Your task to perform on an android device: delete browsing data in the chrome app Image 0: 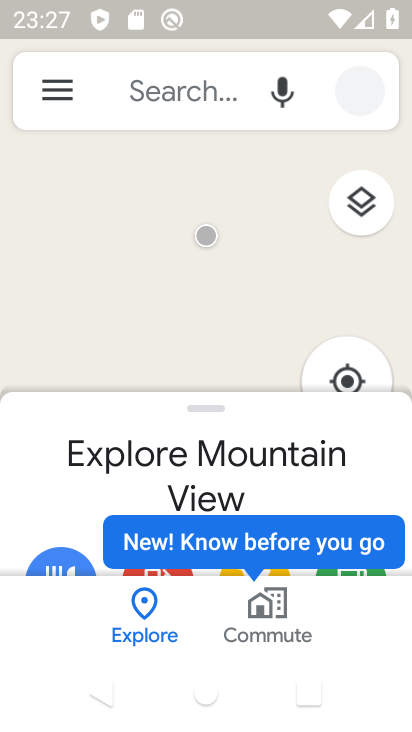
Step 0: press home button
Your task to perform on an android device: delete browsing data in the chrome app Image 1: 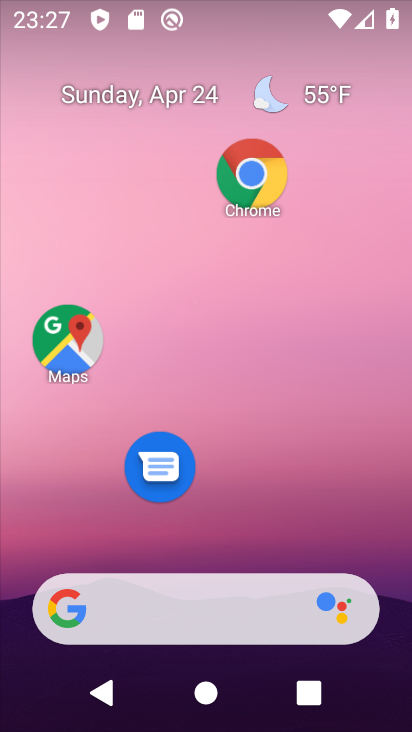
Step 1: click (253, 179)
Your task to perform on an android device: delete browsing data in the chrome app Image 2: 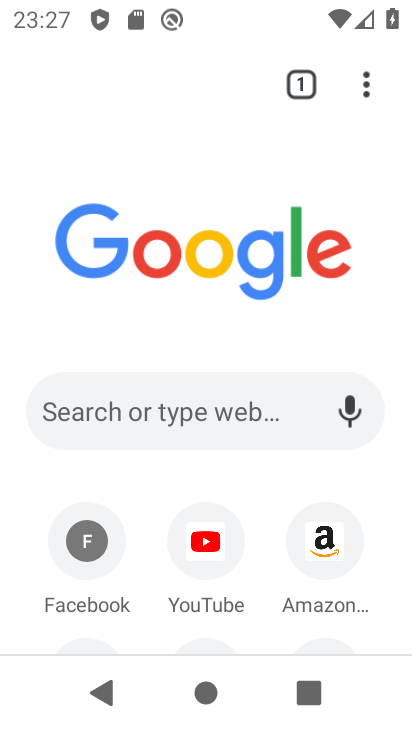
Step 2: click (362, 90)
Your task to perform on an android device: delete browsing data in the chrome app Image 3: 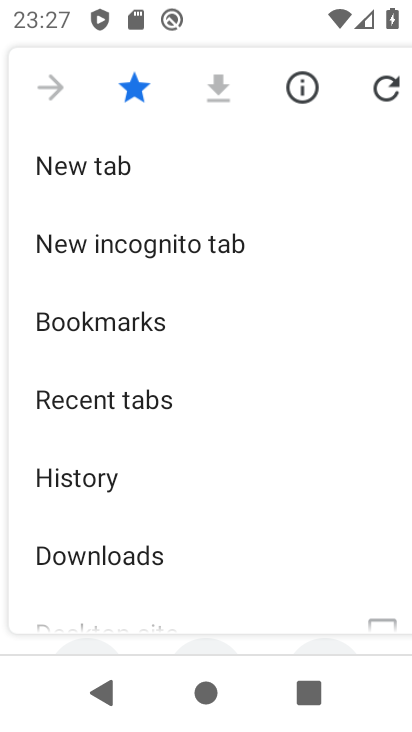
Step 3: drag from (220, 548) to (207, 185)
Your task to perform on an android device: delete browsing data in the chrome app Image 4: 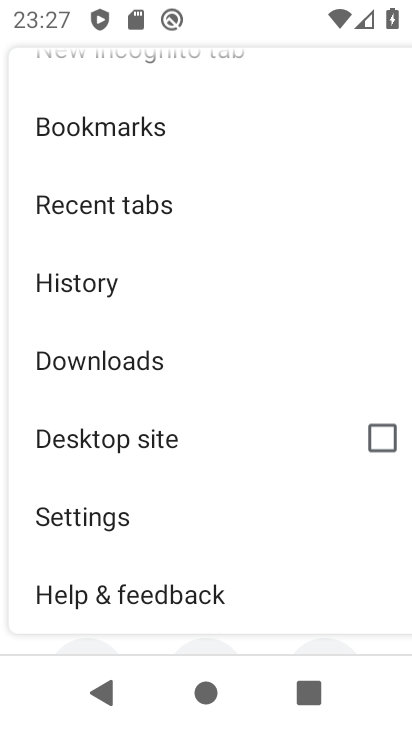
Step 4: click (127, 511)
Your task to perform on an android device: delete browsing data in the chrome app Image 5: 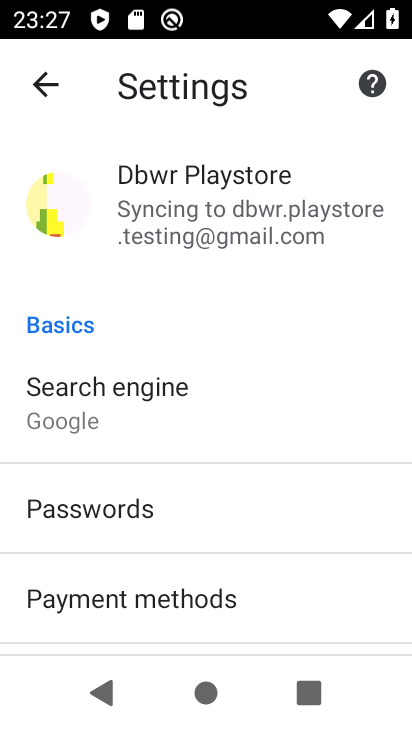
Step 5: drag from (241, 522) to (216, 147)
Your task to perform on an android device: delete browsing data in the chrome app Image 6: 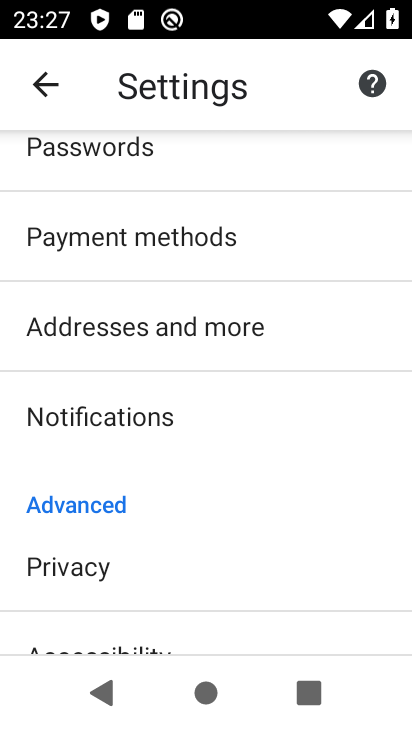
Step 6: drag from (299, 520) to (267, 229)
Your task to perform on an android device: delete browsing data in the chrome app Image 7: 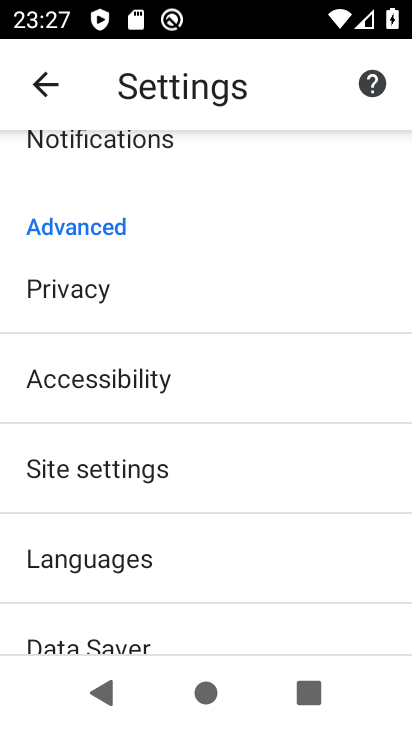
Step 7: click (131, 295)
Your task to perform on an android device: delete browsing data in the chrome app Image 8: 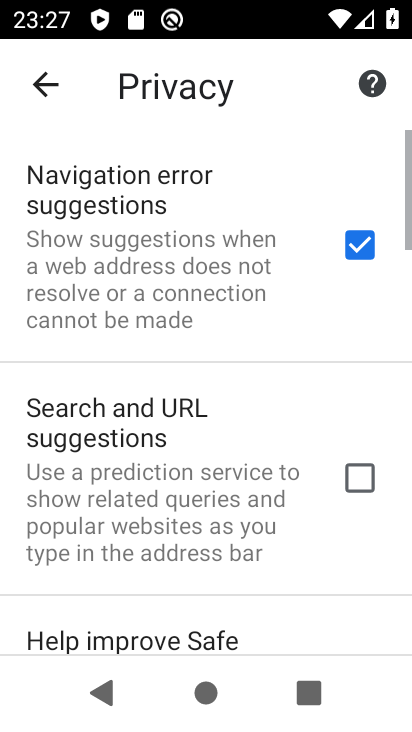
Step 8: drag from (271, 602) to (262, 7)
Your task to perform on an android device: delete browsing data in the chrome app Image 9: 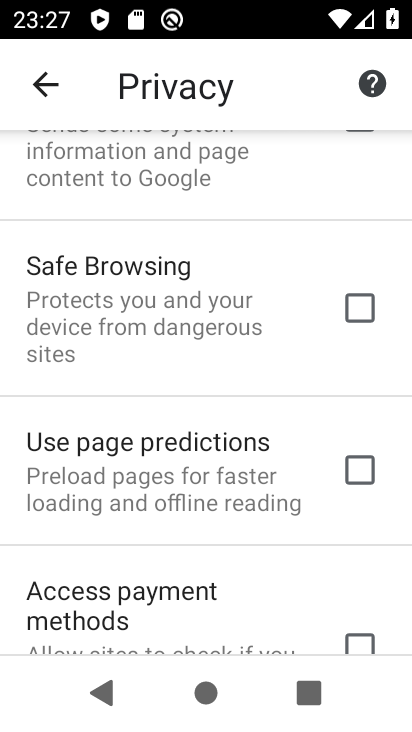
Step 9: drag from (300, 566) to (277, 25)
Your task to perform on an android device: delete browsing data in the chrome app Image 10: 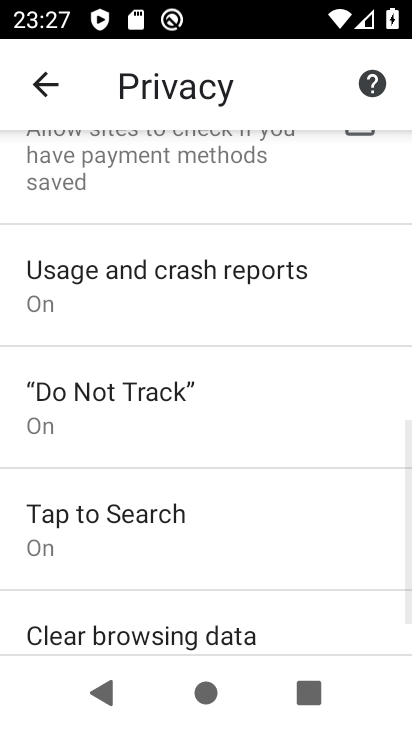
Step 10: drag from (256, 578) to (225, 227)
Your task to perform on an android device: delete browsing data in the chrome app Image 11: 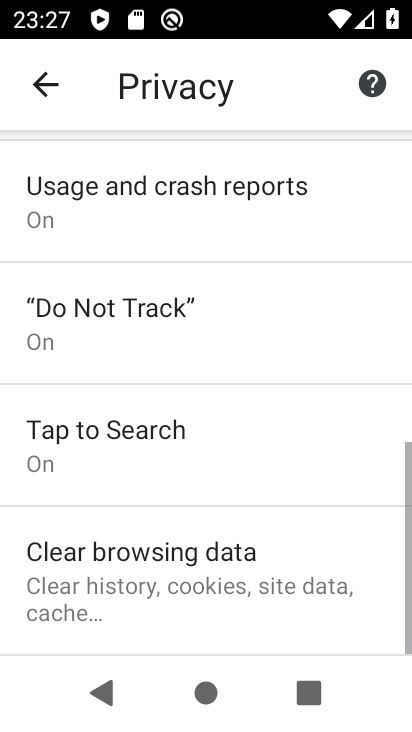
Step 11: click (197, 584)
Your task to perform on an android device: delete browsing data in the chrome app Image 12: 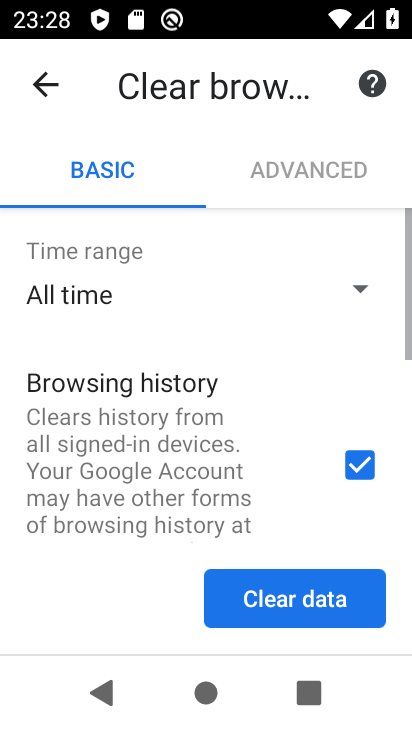
Step 12: drag from (295, 561) to (318, 174)
Your task to perform on an android device: delete browsing data in the chrome app Image 13: 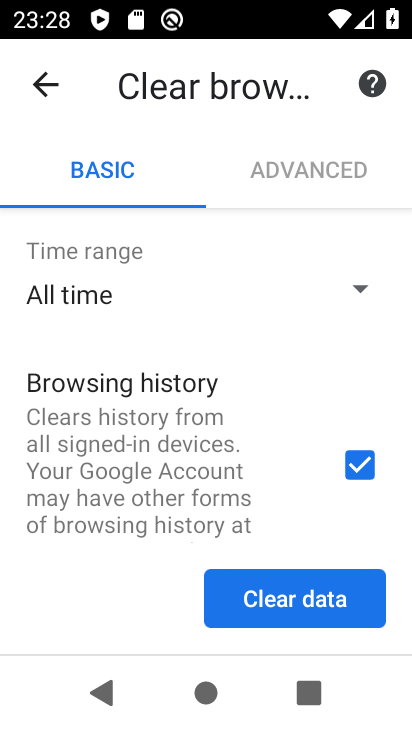
Step 13: drag from (128, 479) to (162, 159)
Your task to perform on an android device: delete browsing data in the chrome app Image 14: 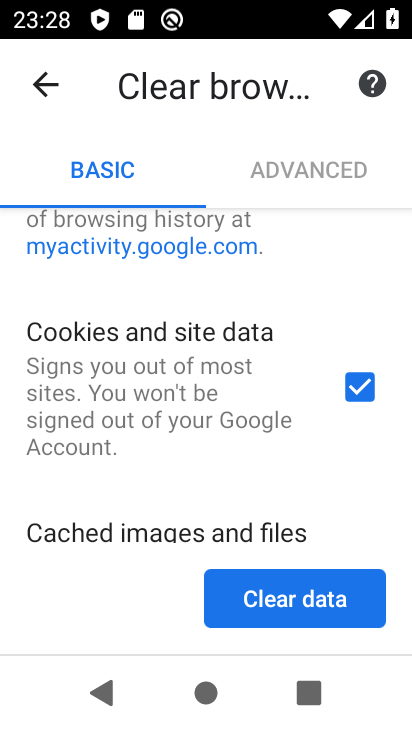
Step 14: click (358, 378)
Your task to perform on an android device: delete browsing data in the chrome app Image 15: 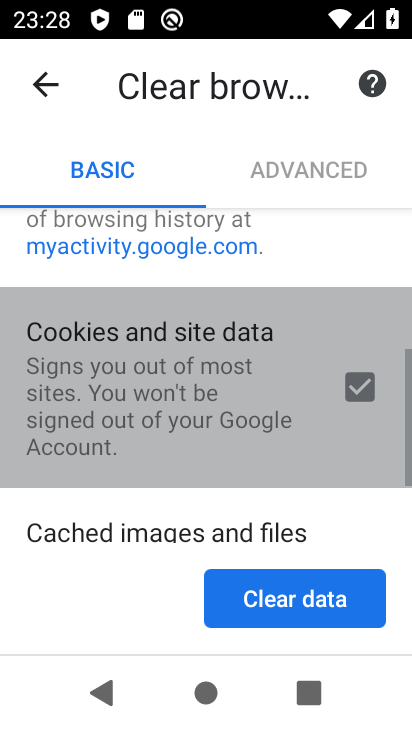
Step 15: drag from (202, 500) to (201, 257)
Your task to perform on an android device: delete browsing data in the chrome app Image 16: 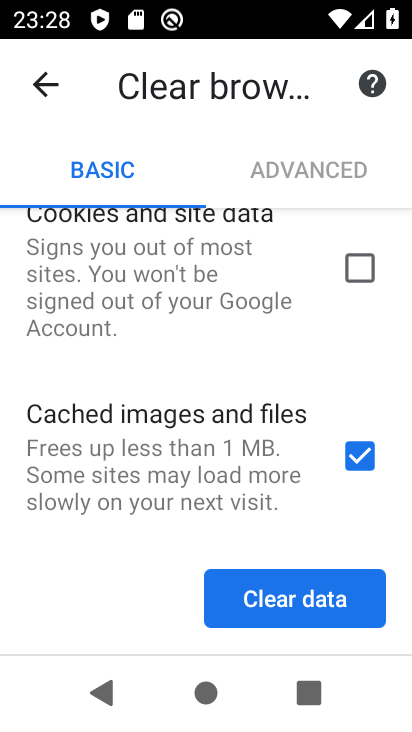
Step 16: click (359, 461)
Your task to perform on an android device: delete browsing data in the chrome app Image 17: 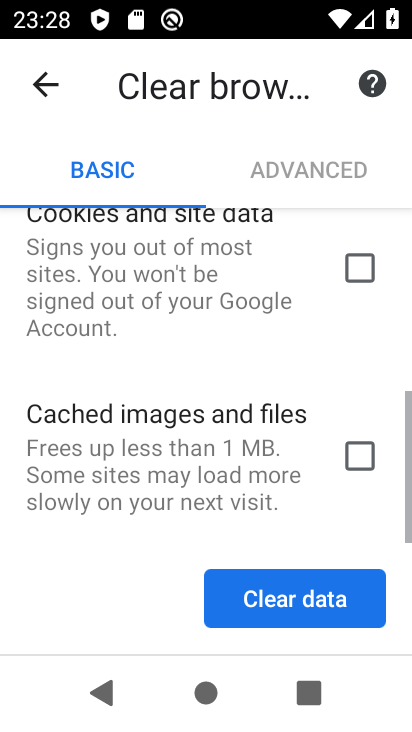
Step 17: click (315, 603)
Your task to perform on an android device: delete browsing data in the chrome app Image 18: 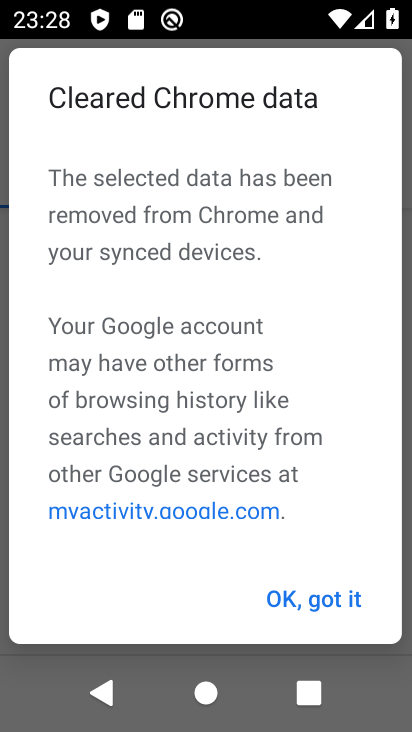
Step 18: click (315, 603)
Your task to perform on an android device: delete browsing data in the chrome app Image 19: 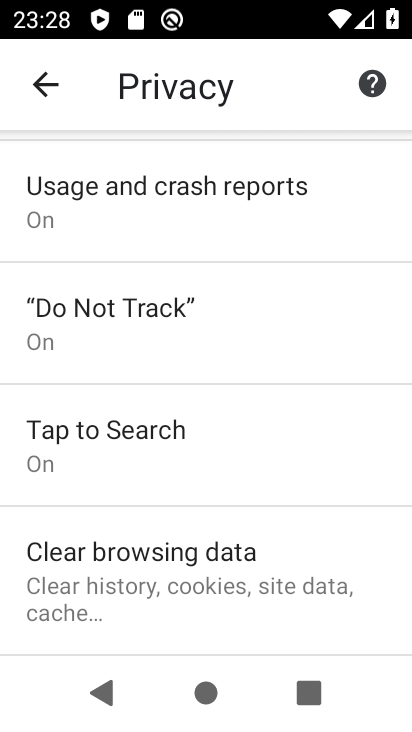
Step 19: task complete